Your task to perform on an android device: Open the map Image 0: 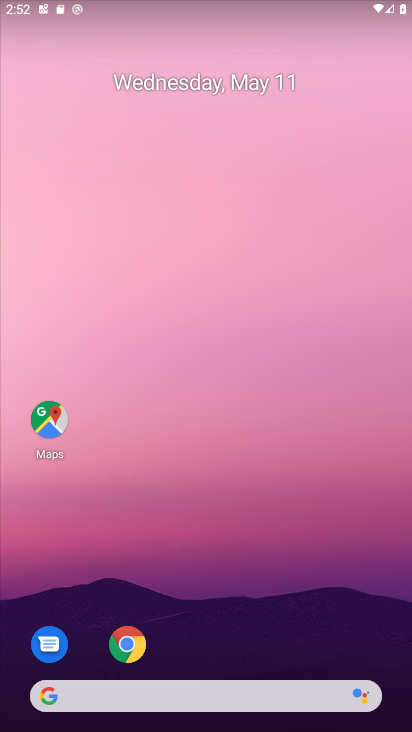
Step 0: click (61, 422)
Your task to perform on an android device: Open the map Image 1: 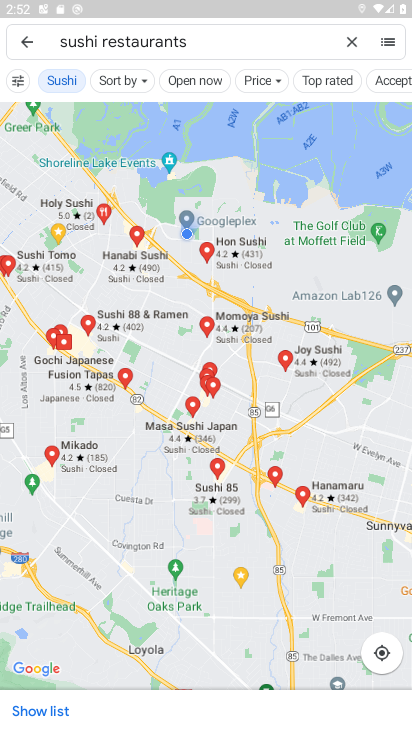
Step 1: task complete